Your task to perform on an android device: What is the recent news? Image 0: 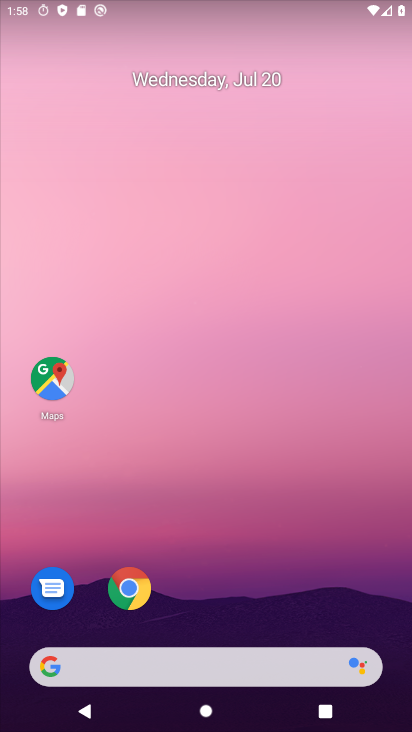
Step 0: drag from (315, 642) to (320, 15)
Your task to perform on an android device: What is the recent news? Image 1: 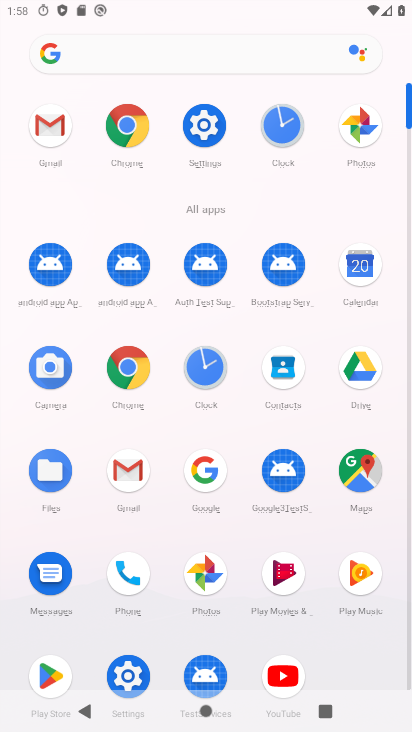
Step 1: click (134, 365)
Your task to perform on an android device: What is the recent news? Image 2: 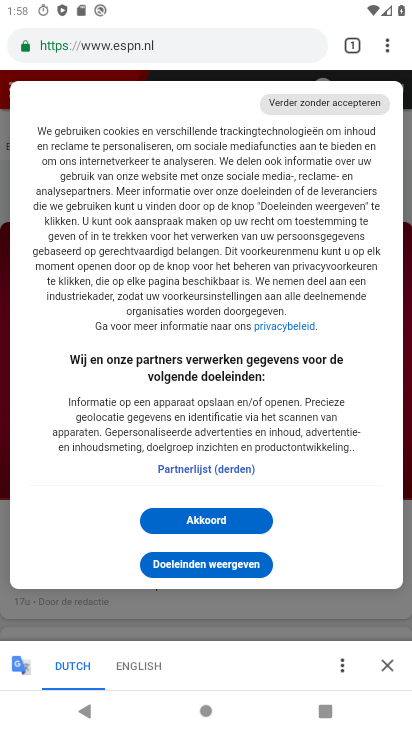
Step 2: click (193, 37)
Your task to perform on an android device: What is the recent news? Image 3: 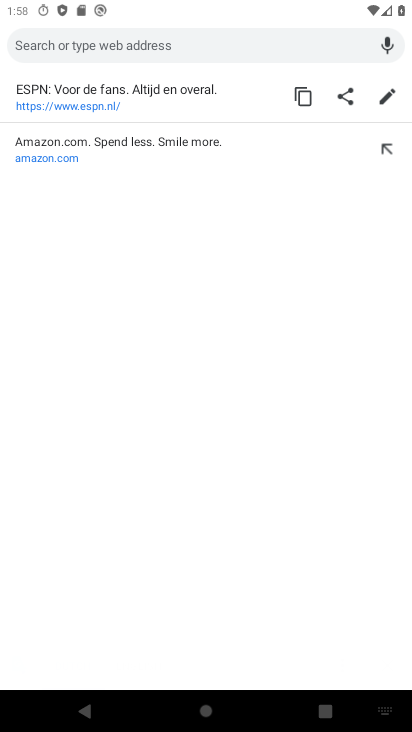
Step 3: type "recent news"
Your task to perform on an android device: What is the recent news? Image 4: 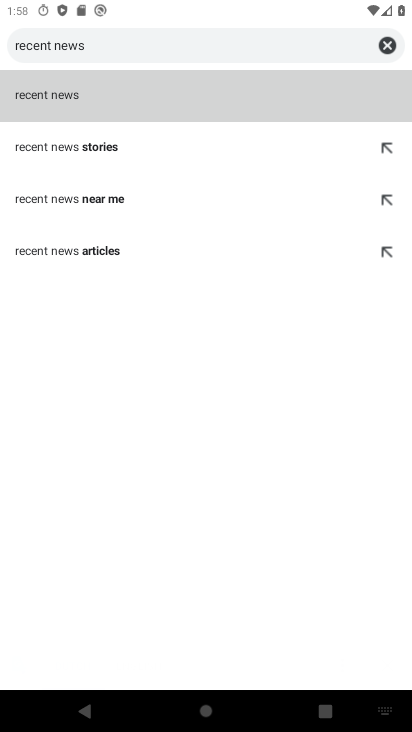
Step 4: click (154, 106)
Your task to perform on an android device: What is the recent news? Image 5: 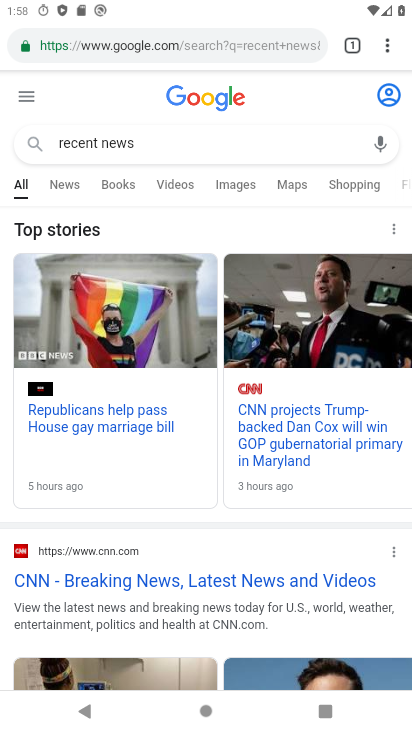
Step 5: task complete